Your task to perform on an android device: uninstall "Google Translate" Image 0: 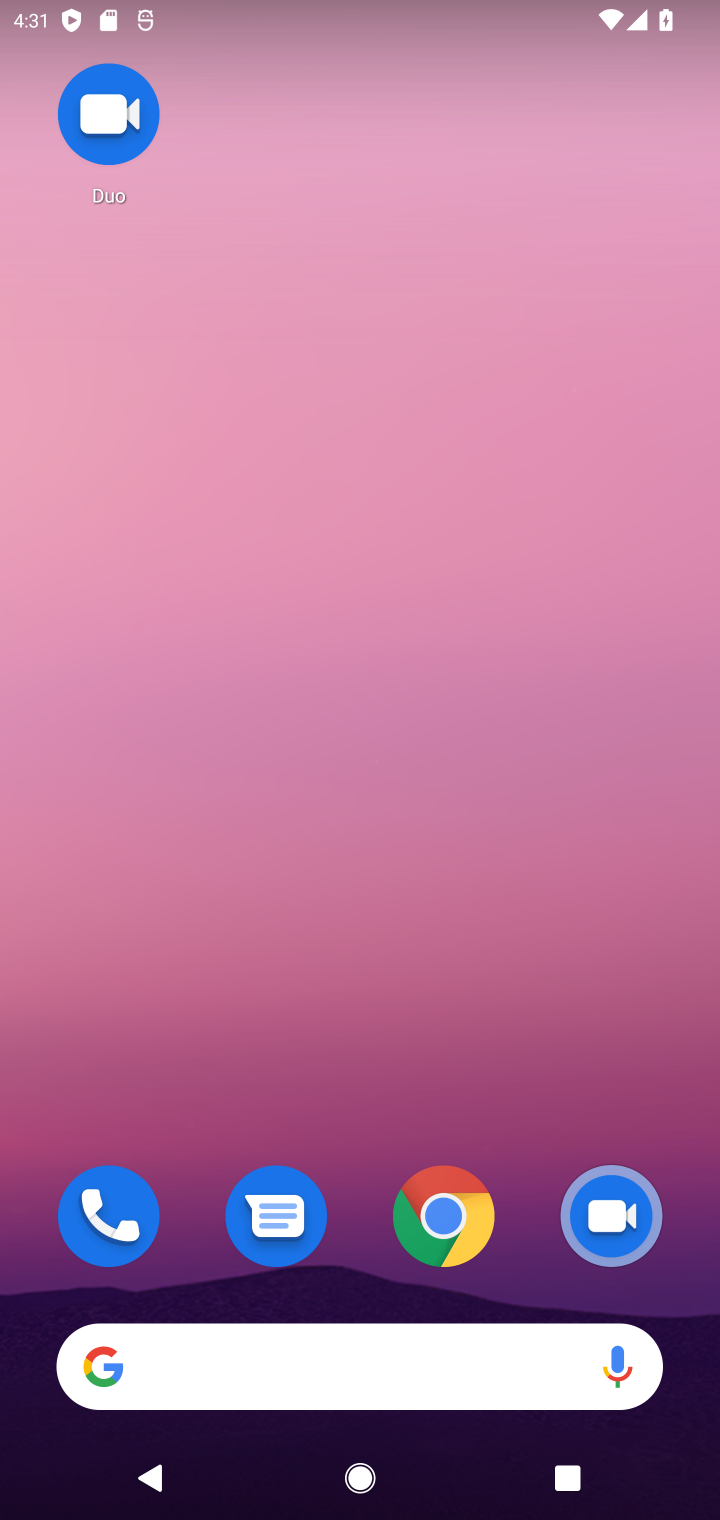
Step 0: drag from (362, 1006) to (372, 433)
Your task to perform on an android device: uninstall "Google Translate" Image 1: 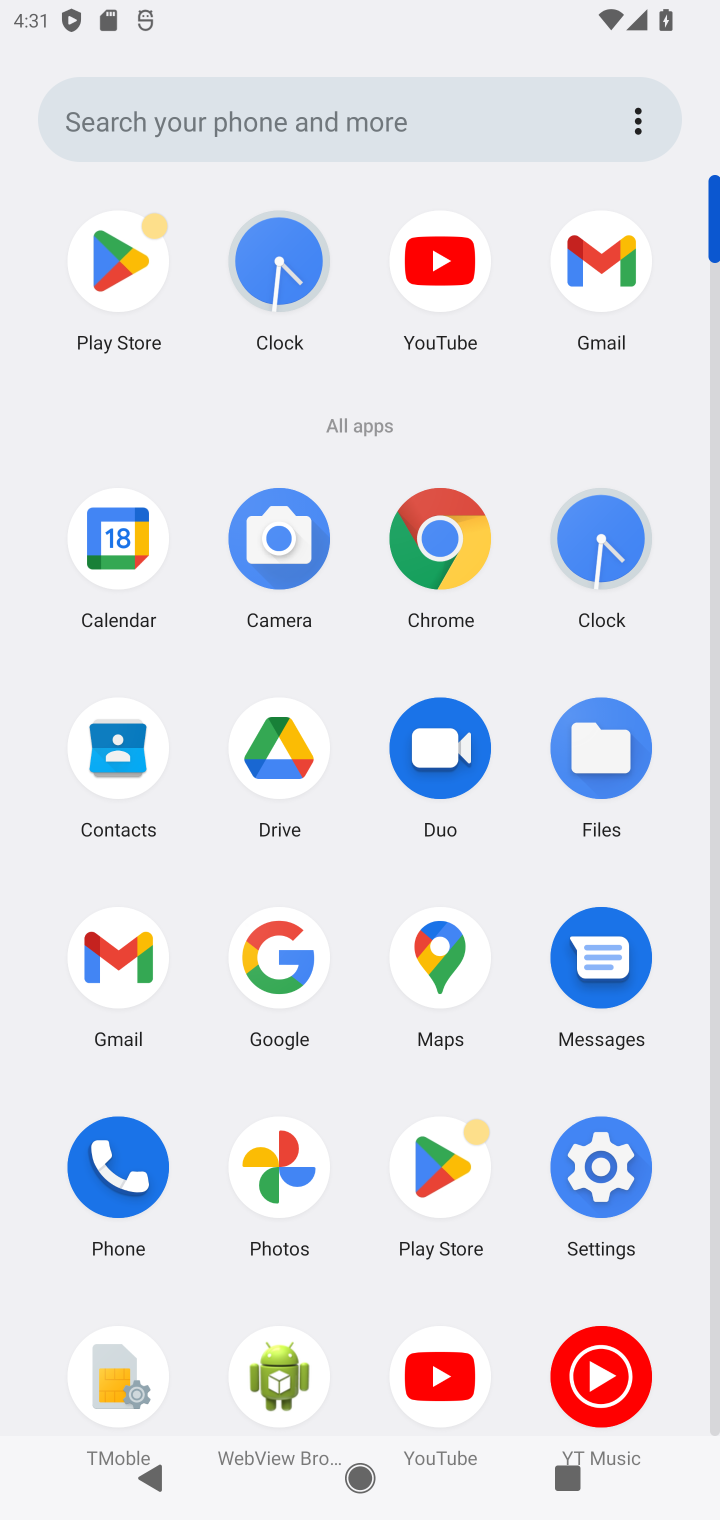
Step 1: click (146, 254)
Your task to perform on an android device: uninstall "Google Translate" Image 2: 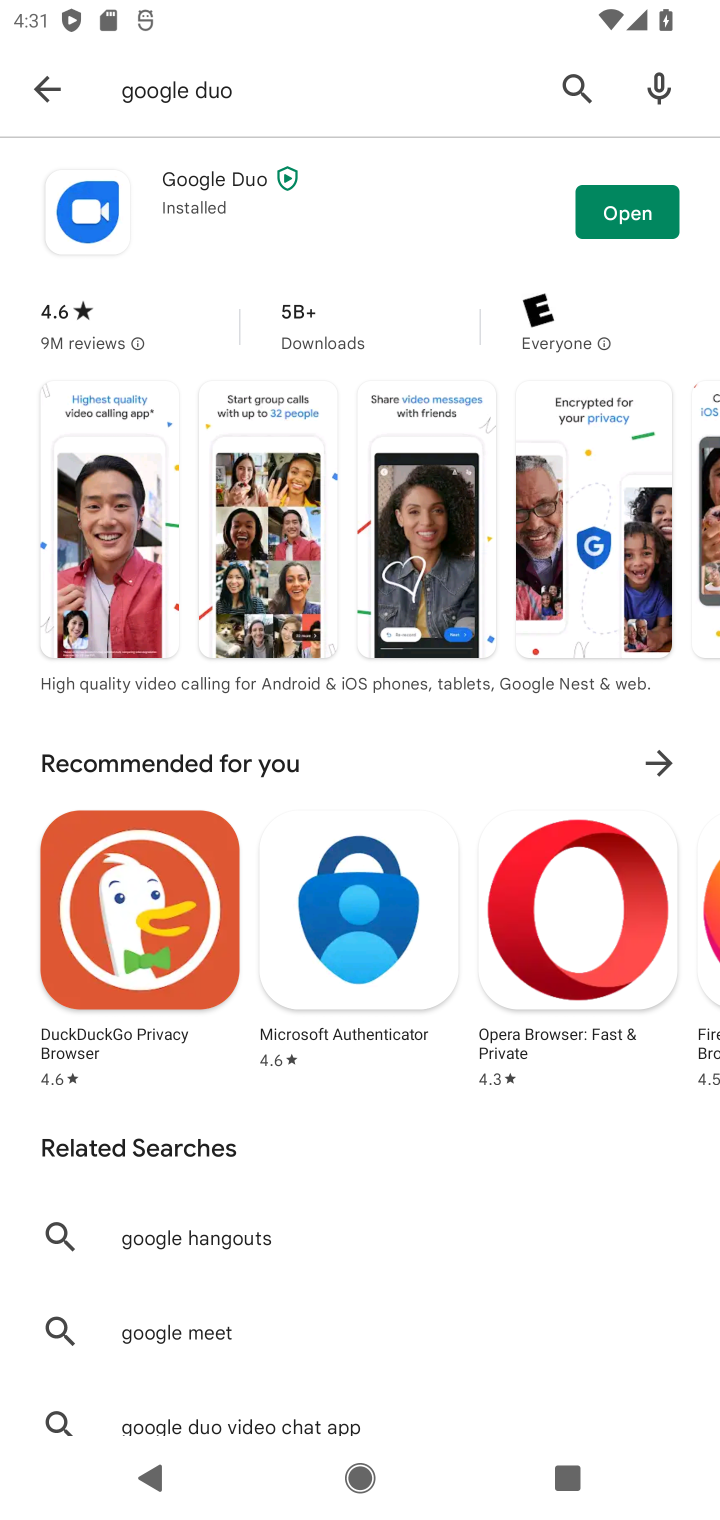
Step 2: click (560, 100)
Your task to perform on an android device: uninstall "Google Translate" Image 3: 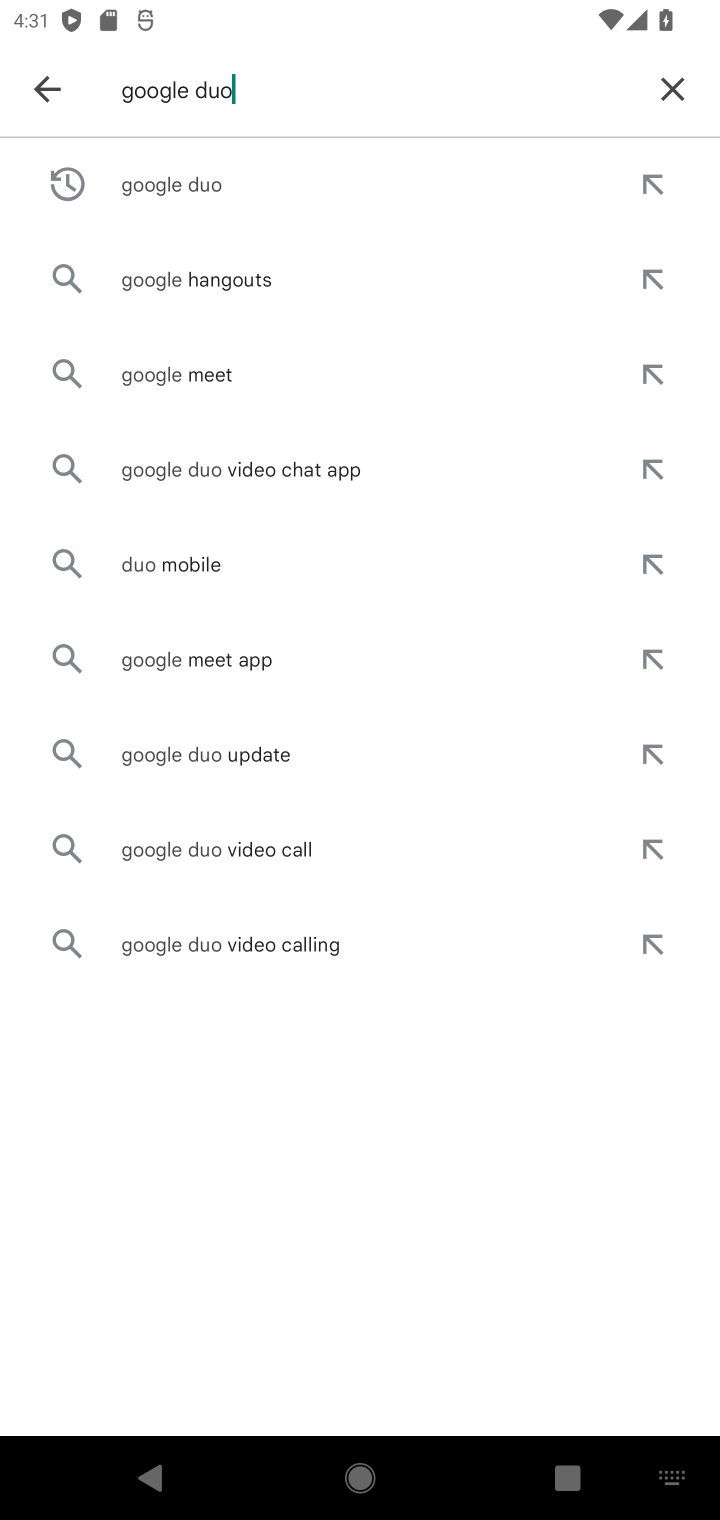
Step 3: click (670, 77)
Your task to perform on an android device: uninstall "Google Translate" Image 4: 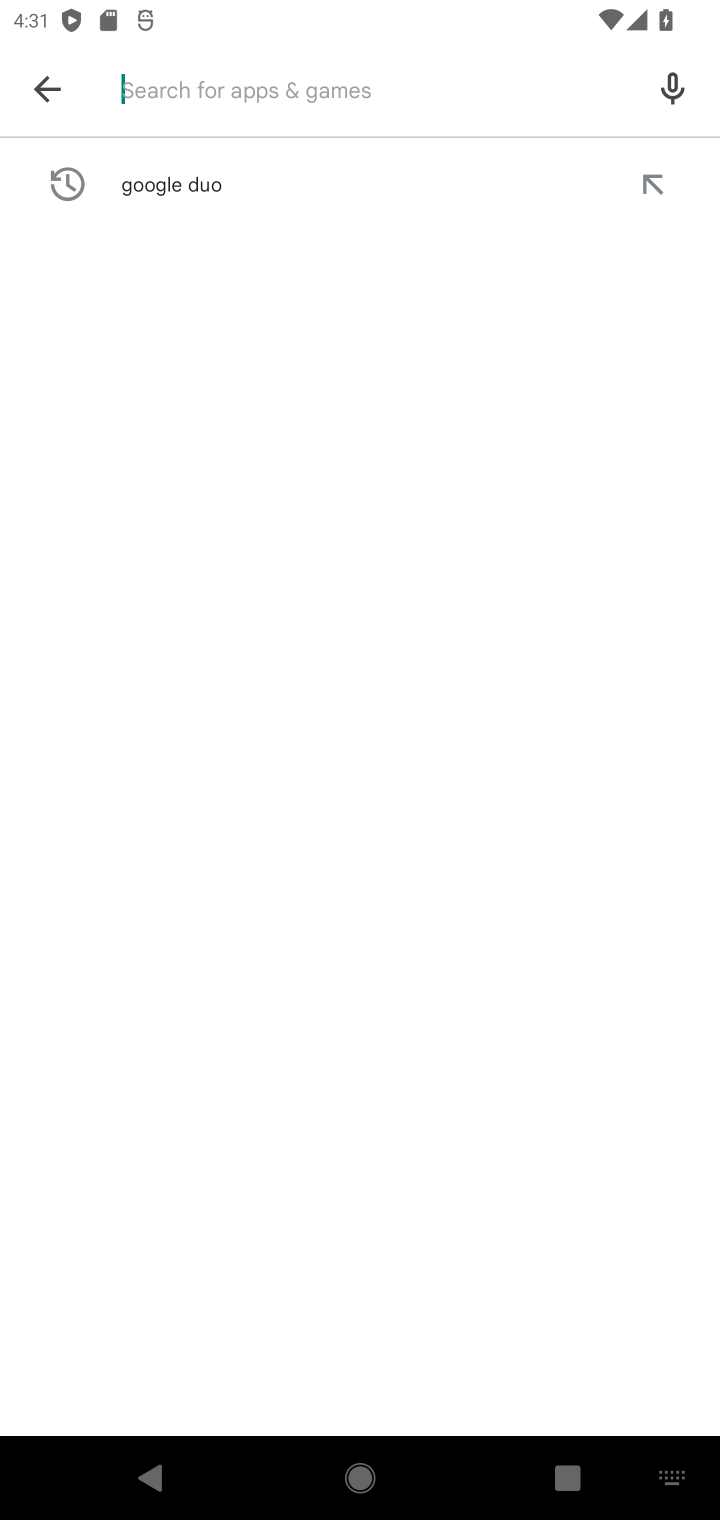
Step 4: type "Google Translate"
Your task to perform on an android device: uninstall "Google Translate" Image 5: 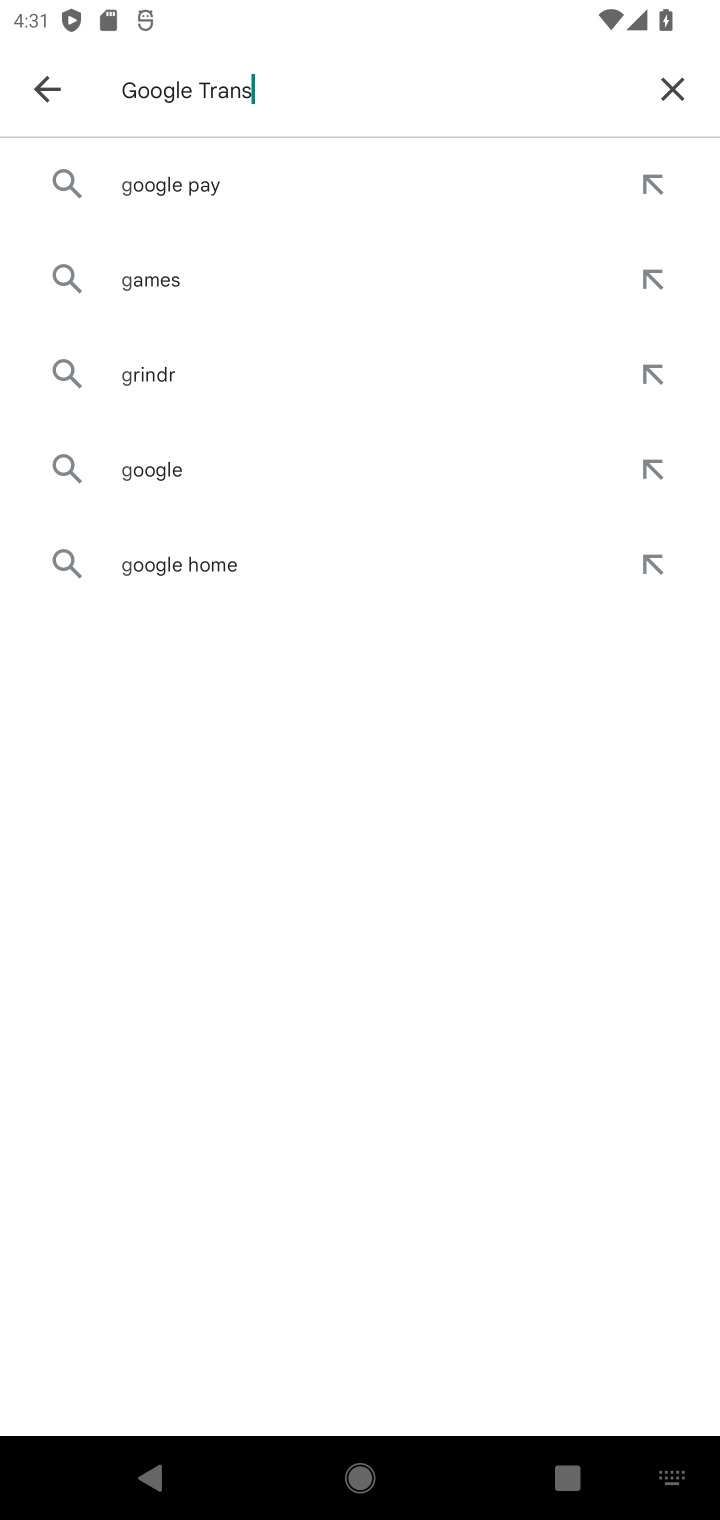
Step 5: type ""
Your task to perform on an android device: uninstall "Google Translate" Image 6: 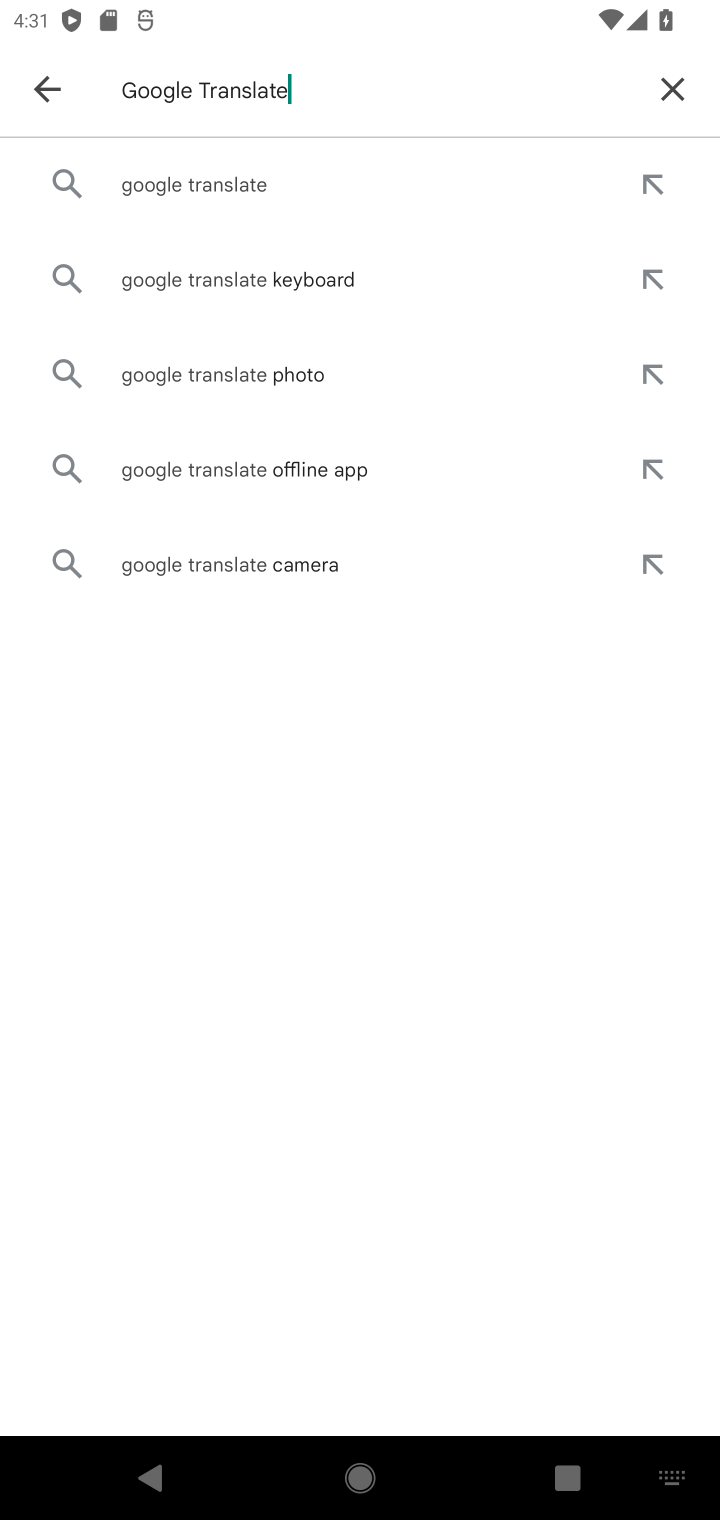
Step 6: click (283, 191)
Your task to perform on an android device: uninstall "Google Translate" Image 7: 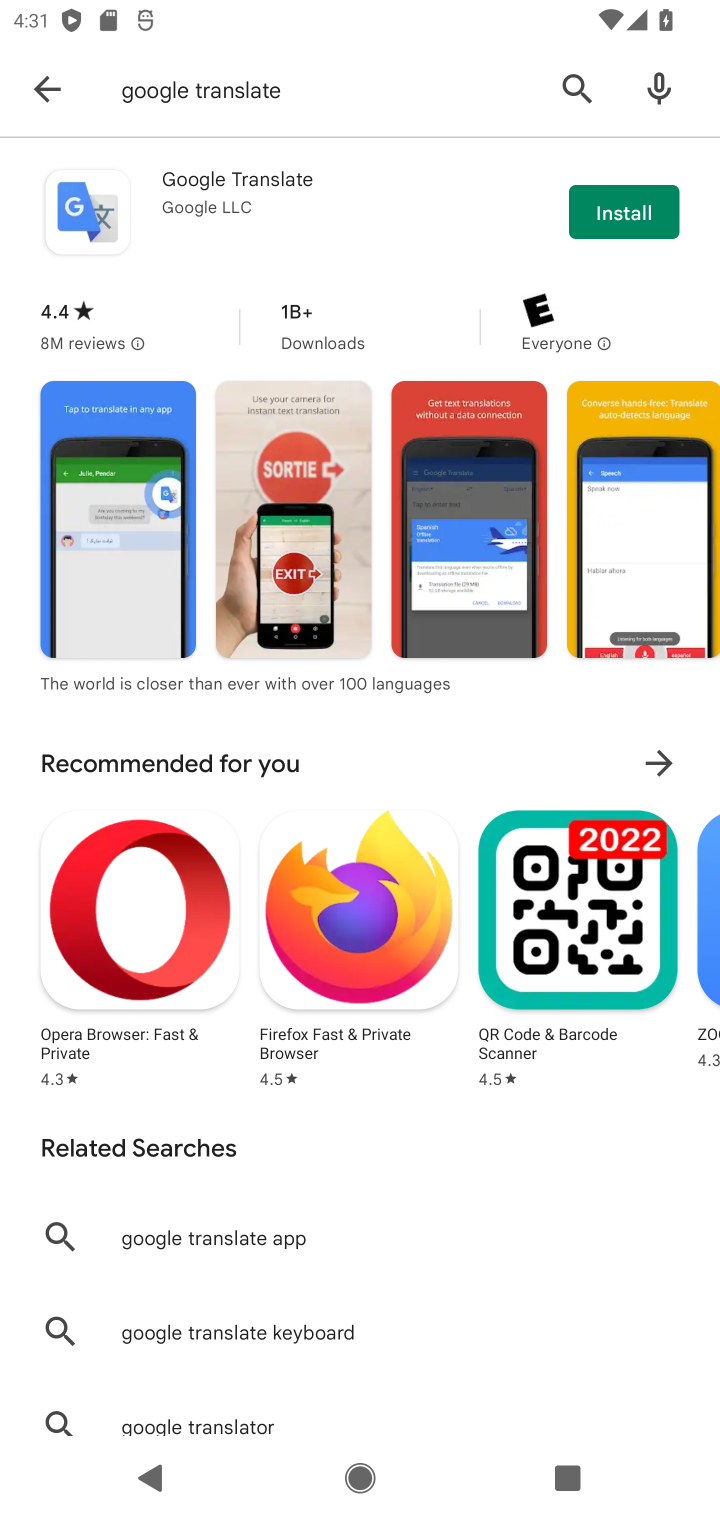
Step 7: click (354, 195)
Your task to perform on an android device: uninstall "Google Translate" Image 8: 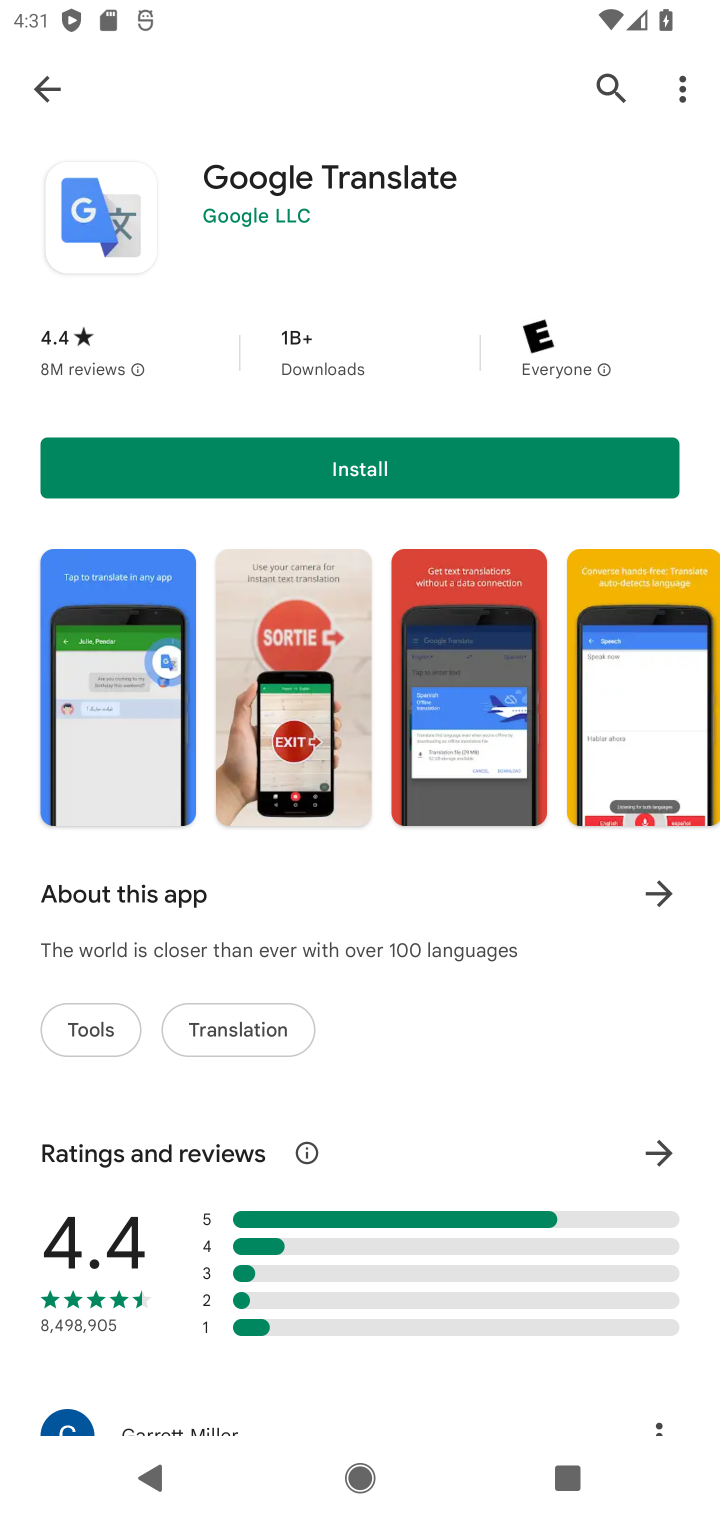
Step 8: task complete